Your task to perform on an android device: Is it going to rain tomorrow? Image 0: 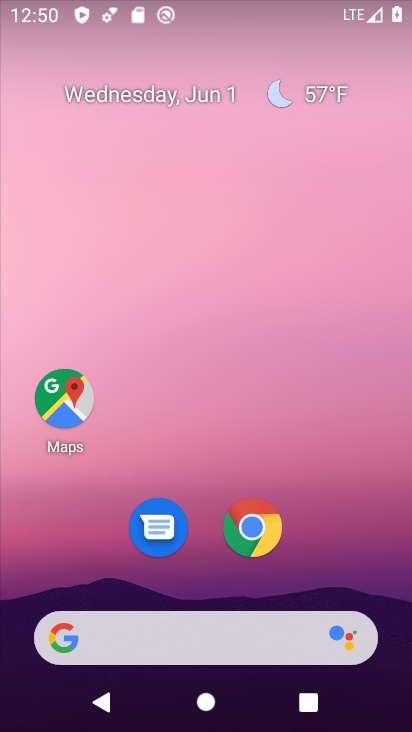
Step 0: drag from (204, 616) to (201, 120)
Your task to perform on an android device: Is it going to rain tomorrow? Image 1: 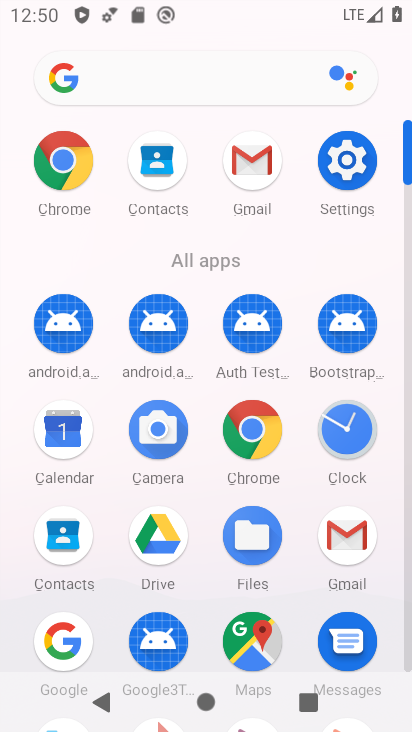
Step 1: click (65, 635)
Your task to perform on an android device: Is it going to rain tomorrow? Image 2: 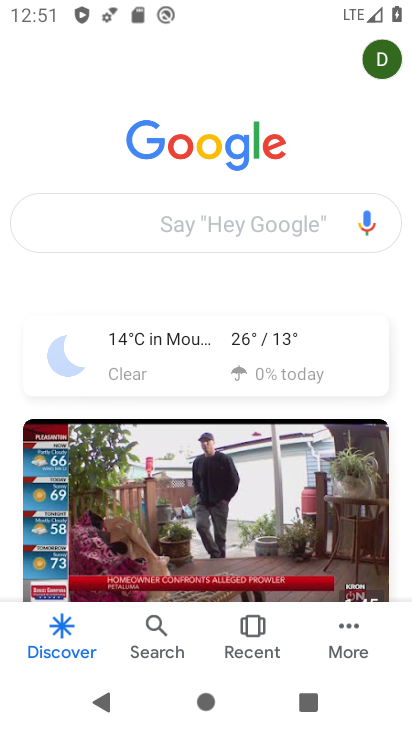
Step 2: click (63, 385)
Your task to perform on an android device: Is it going to rain tomorrow? Image 3: 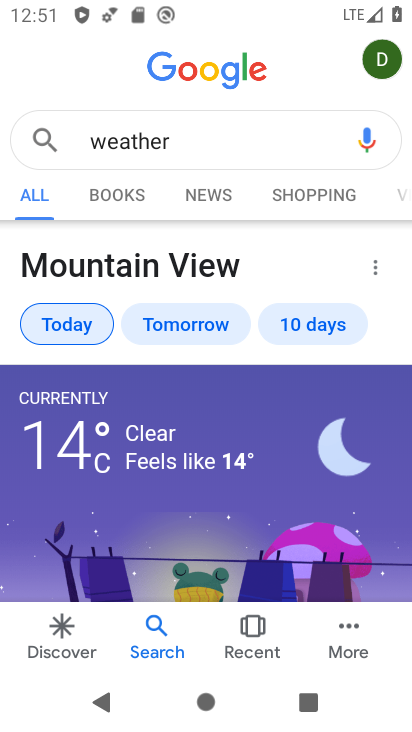
Step 3: click (130, 332)
Your task to perform on an android device: Is it going to rain tomorrow? Image 4: 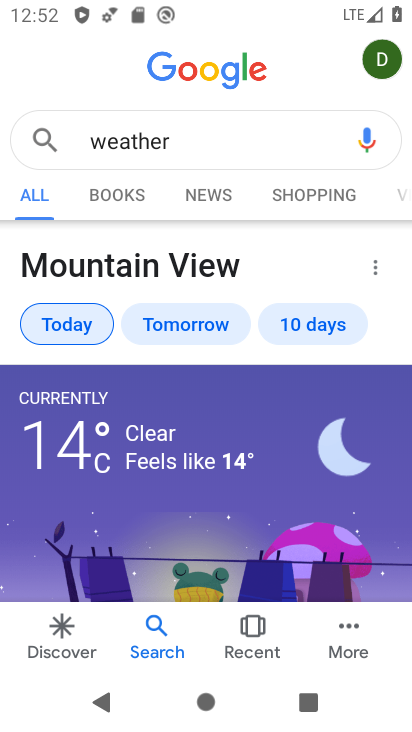
Step 4: click (231, 327)
Your task to perform on an android device: Is it going to rain tomorrow? Image 5: 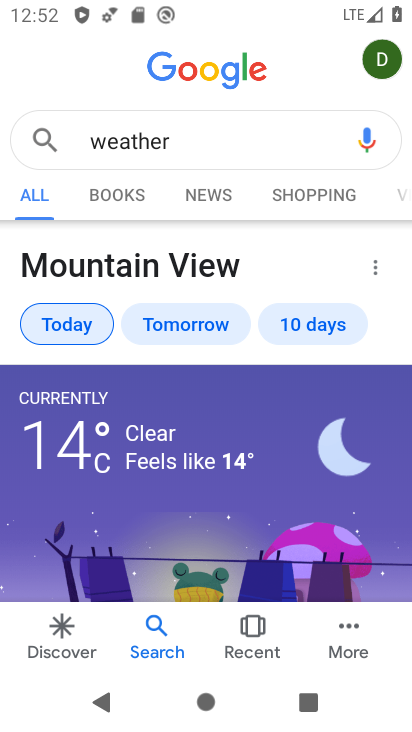
Step 5: drag from (236, 485) to (189, 31)
Your task to perform on an android device: Is it going to rain tomorrow? Image 6: 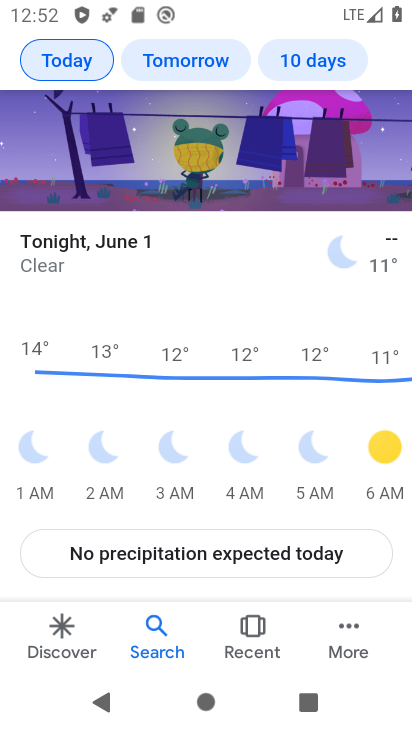
Step 6: drag from (243, 496) to (142, 2)
Your task to perform on an android device: Is it going to rain tomorrow? Image 7: 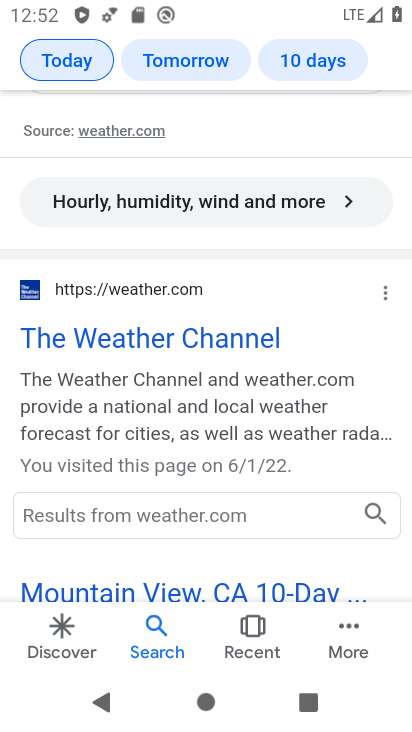
Step 7: drag from (170, 464) to (112, 17)
Your task to perform on an android device: Is it going to rain tomorrow? Image 8: 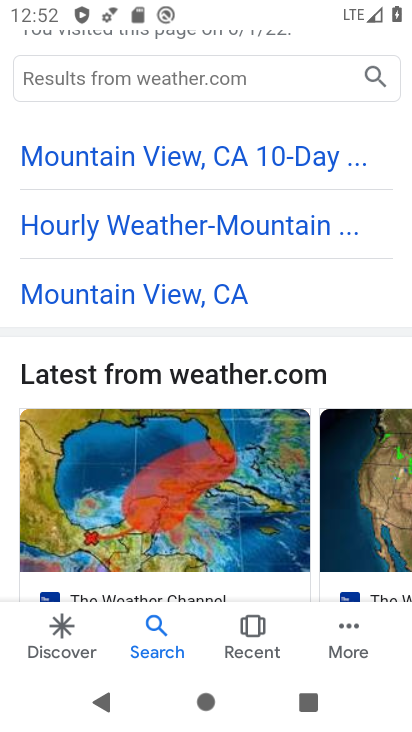
Step 8: drag from (208, 408) to (167, 9)
Your task to perform on an android device: Is it going to rain tomorrow? Image 9: 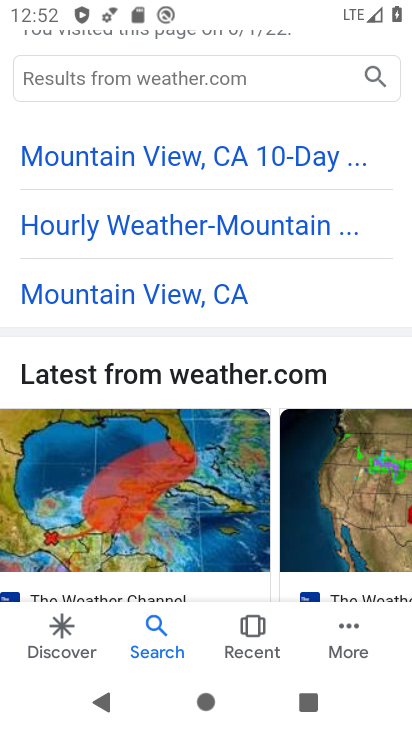
Step 9: drag from (249, 474) to (162, 8)
Your task to perform on an android device: Is it going to rain tomorrow? Image 10: 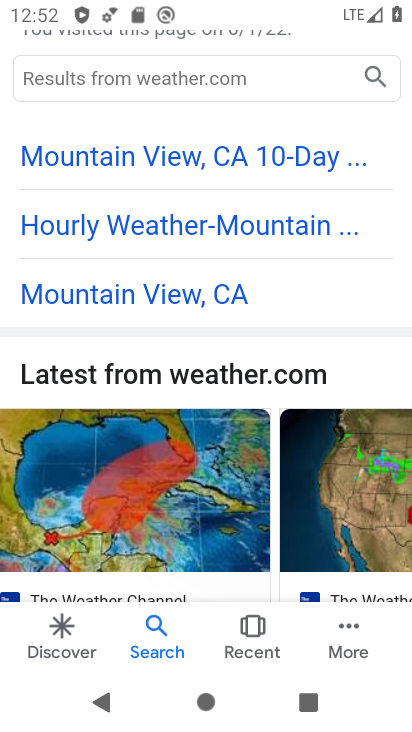
Step 10: drag from (243, 385) to (159, 16)
Your task to perform on an android device: Is it going to rain tomorrow? Image 11: 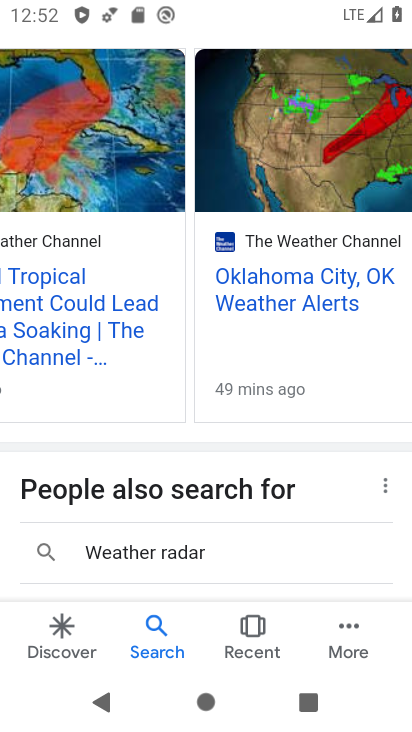
Step 11: drag from (232, 491) to (194, 97)
Your task to perform on an android device: Is it going to rain tomorrow? Image 12: 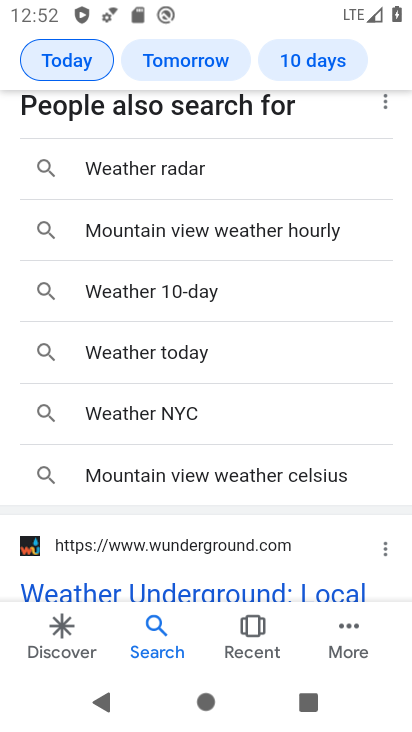
Step 12: click (186, 295)
Your task to perform on an android device: Is it going to rain tomorrow? Image 13: 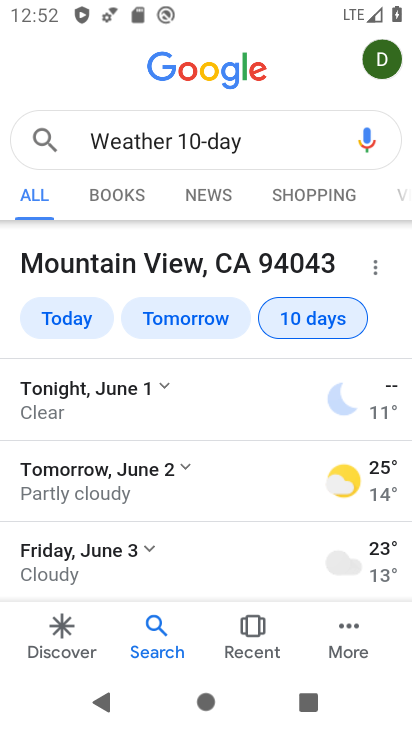
Step 13: click (152, 485)
Your task to perform on an android device: Is it going to rain tomorrow? Image 14: 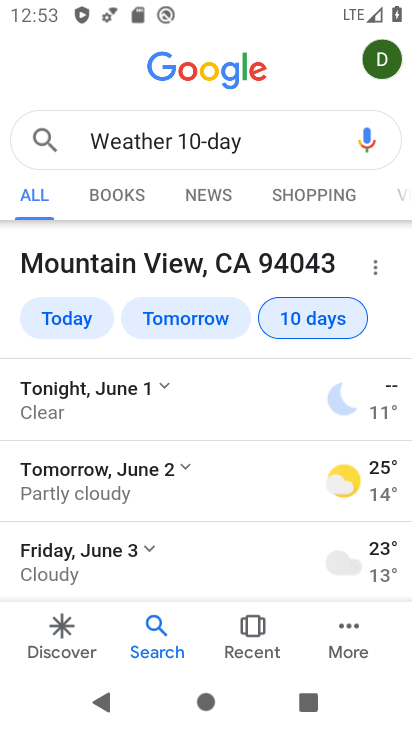
Step 14: task complete